Your task to perform on an android device: Open the stopwatch Image 0: 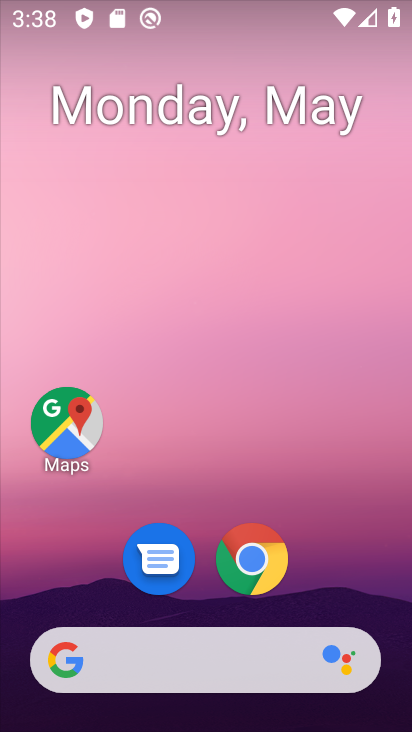
Step 0: drag from (267, 706) to (179, 15)
Your task to perform on an android device: Open the stopwatch Image 1: 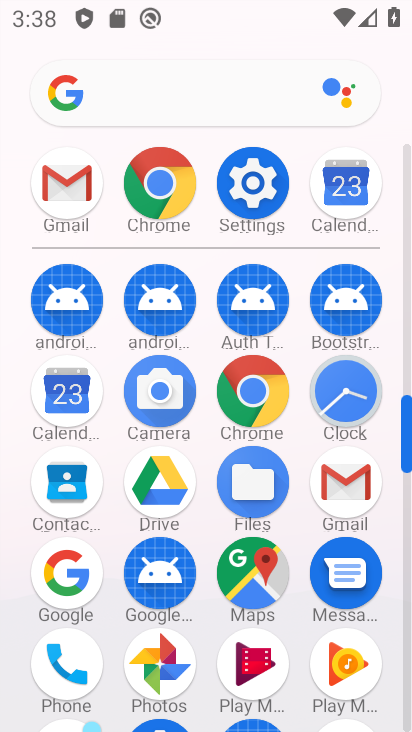
Step 1: click (338, 379)
Your task to perform on an android device: Open the stopwatch Image 2: 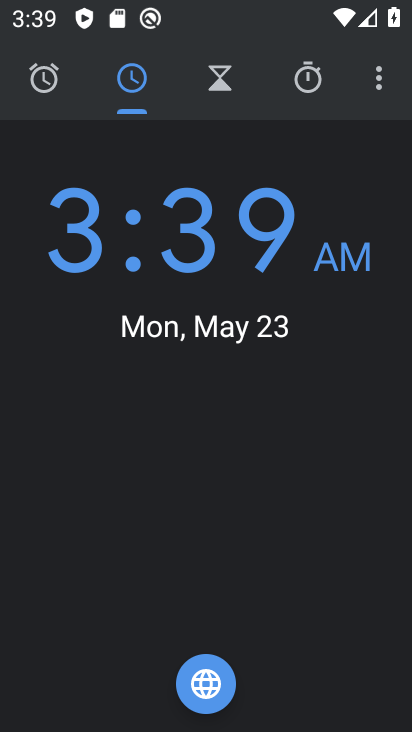
Step 2: click (302, 73)
Your task to perform on an android device: Open the stopwatch Image 3: 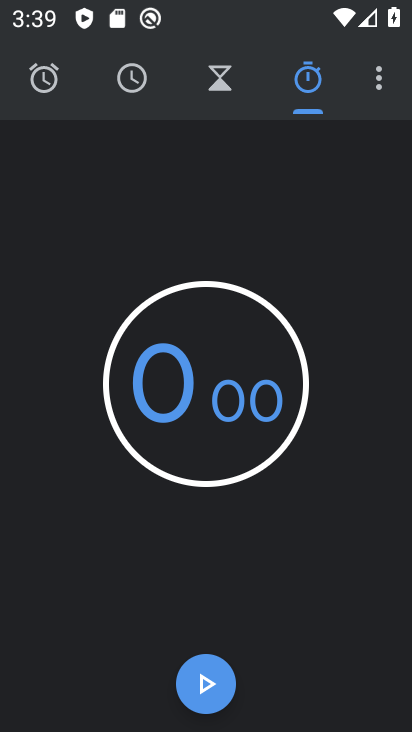
Step 3: task complete